Your task to perform on an android device: Open settings on Google Maps Image 0: 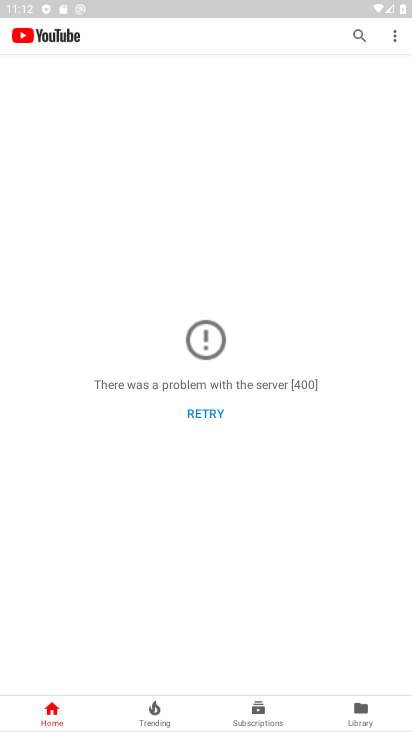
Step 0: press home button
Your task to perform on an android device: Open settings on Google Maps Image 1: 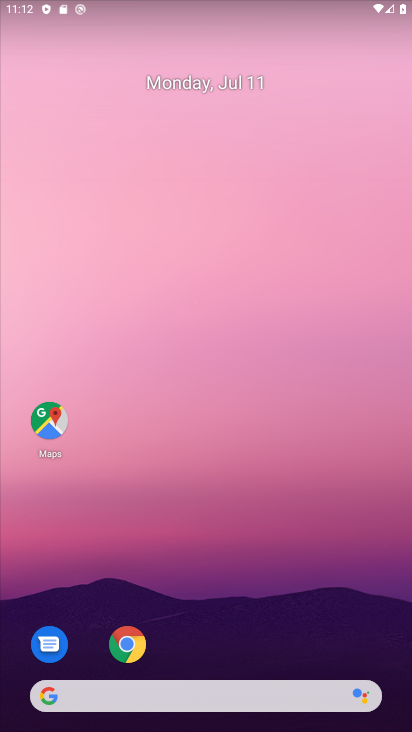
Step 1: click (59, 417)
Your task to perform on an android device: Open settings on Google Maps Image 2: 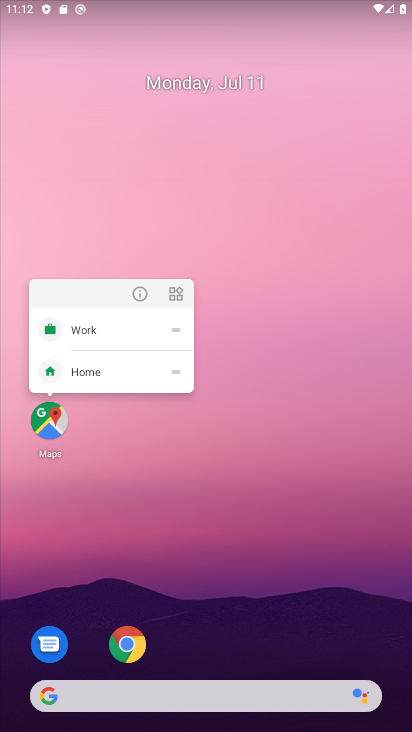
Step 2: click (52, 423)
Your task to perform on an android device: Open settings on Google Maps Image 3: 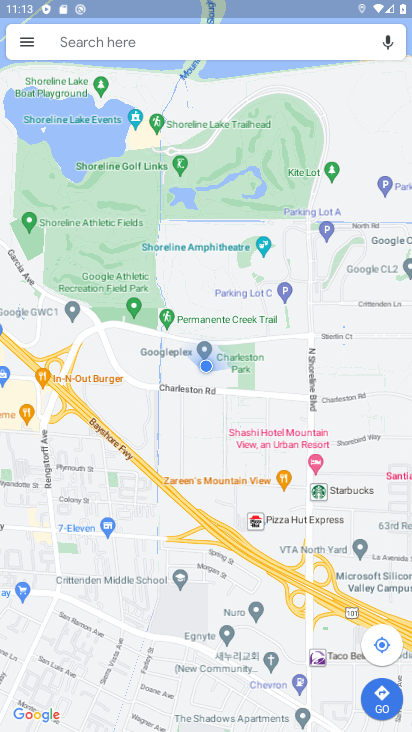
Step 3: task complete